Your task to perform on an android device: allow cookies in the chrome app Image 0: 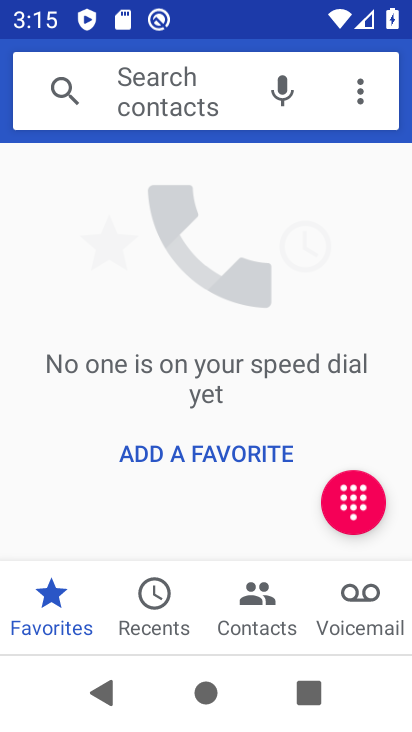
Step 0: press home button
Your task to perform on an android device: allow cookies in the chrome app Image 1: 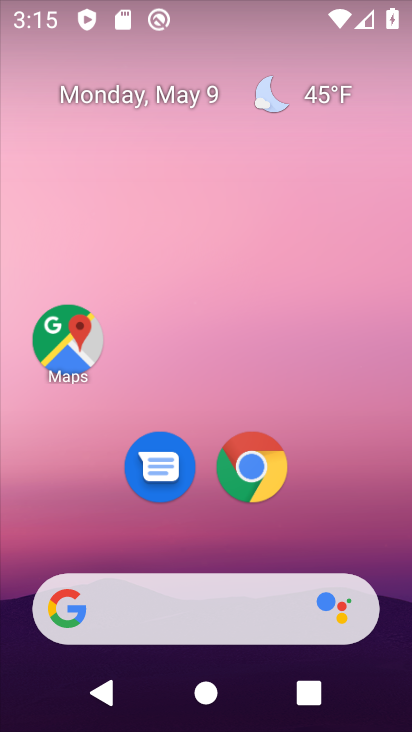
Step 1: drag from (330, 529) to (347, 167)
Your task to perform on an android device: allow cookies in the chrome app Image 2: 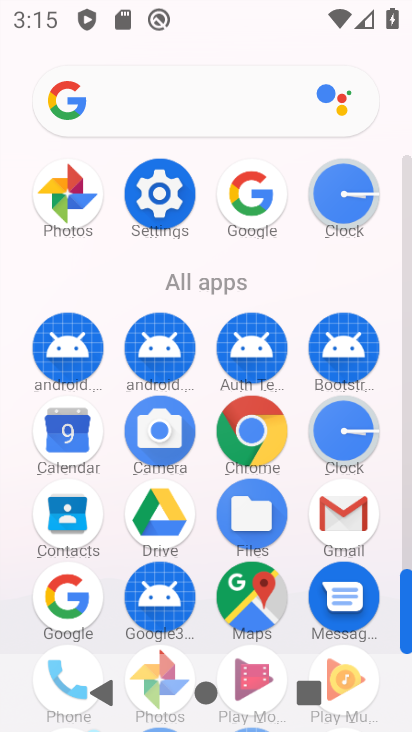
Step 2: click (260, 442)
Your task to perform on an android device: allow cookies in the chrome app Image 3: 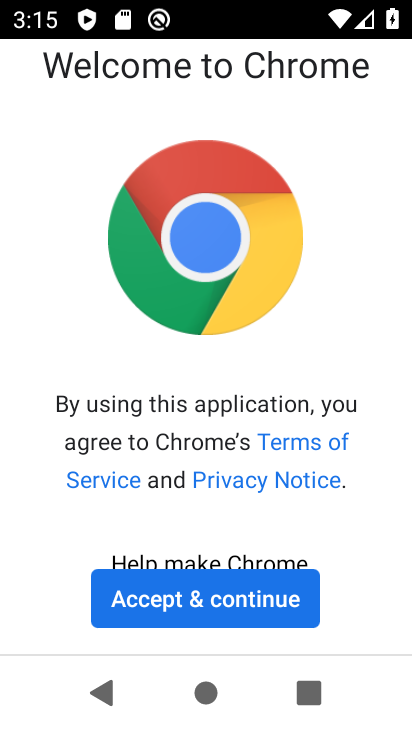
Step 3: click (259, 592)
Your task to perform on an android device: allow cookies in the chrome app Image 4: 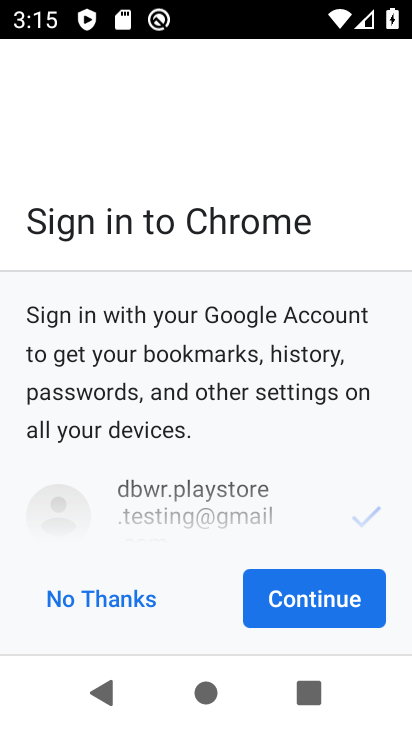
Step 4: click (292, 602)
Your task to perform on an android device: allow cookies in the chrome app Image 5: 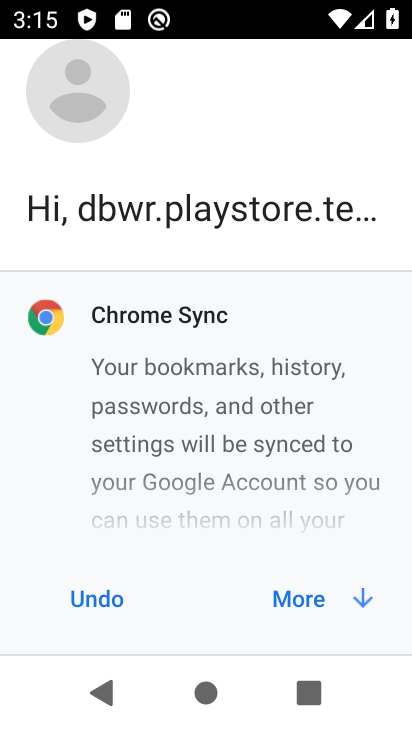
Step 5: click (293, 602)
Your task to perform on an android device: allow cookies in the chrome app Image 6: 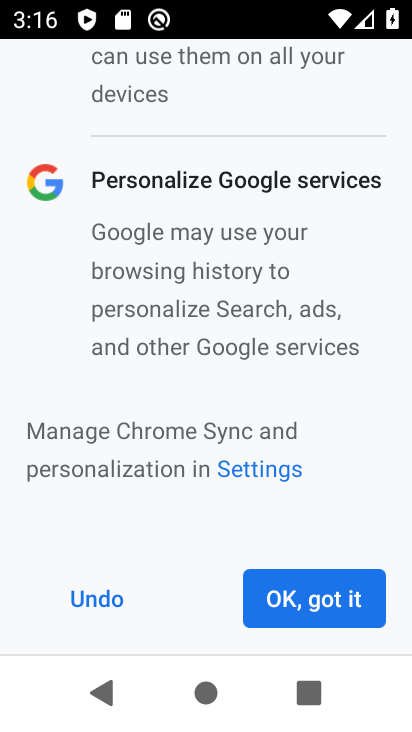
Step 6: click (293, 602)
Your task to perform on an android device: allow cookies in the chrome app Image 7: 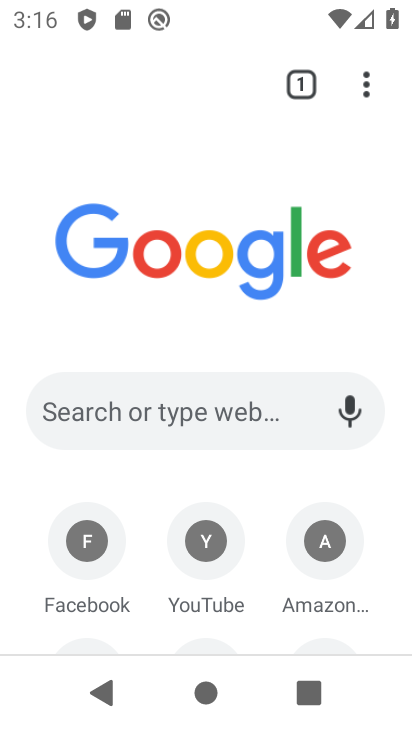
Step 7: drag from (365, 89) to (205, 524)
Your task to perform on an android device: allow cookies in the chrome app Image 8: 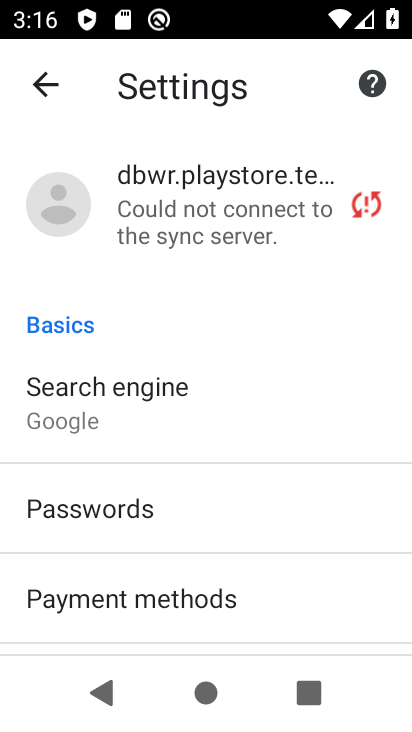
Step 8: drag from (159, 612) to (198, 219)
Your task to perform on an android device: allow cookies in the chrome app Image 9: 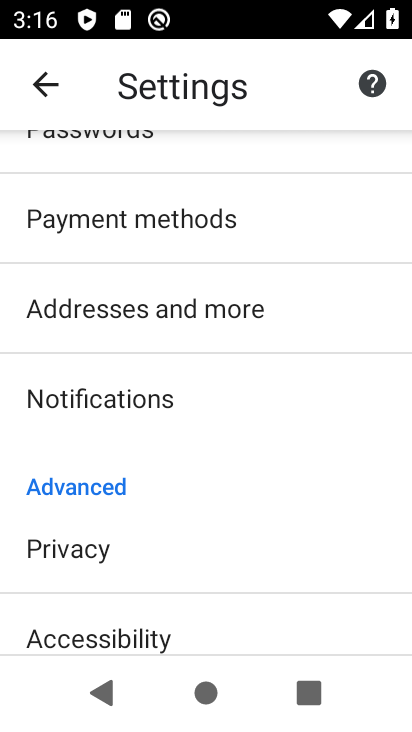
Step 9: drag from (169, 614) to (192, 373)
Your task to perform on an android device: allow cookies in the chrome app Image 10: 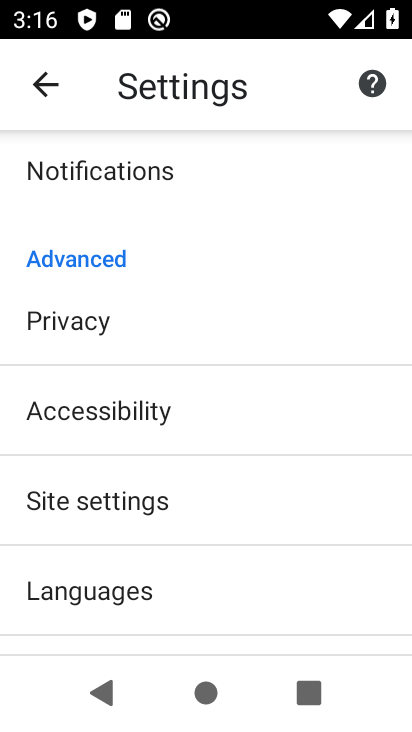
Step 10: click (143, 510)
Your task to perform on an android device: allow cookies in the chrome app Image 11: 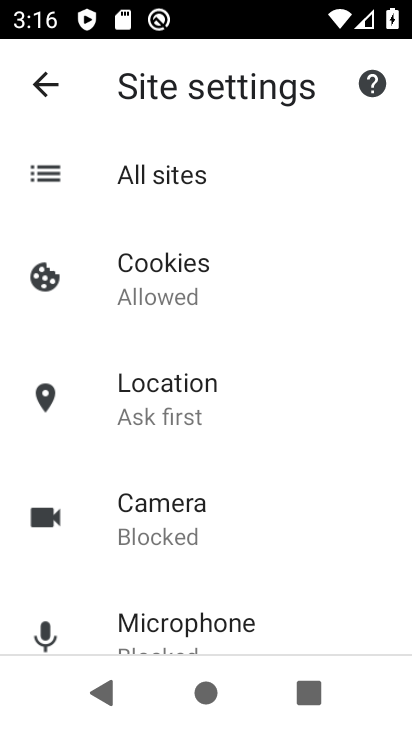
Step 11: click (211, 285)
Your task to perform on an android device: allow cookies in the chrome app Image 12: 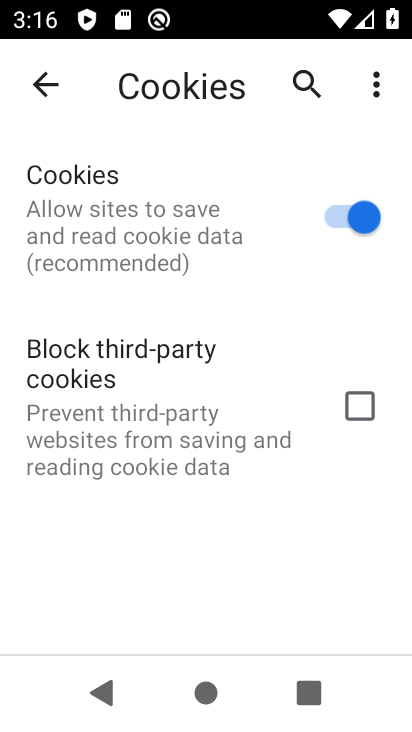
Step 12: task complete